Your task to perform on an android device: turn off data saver in the chrome app Image 0: 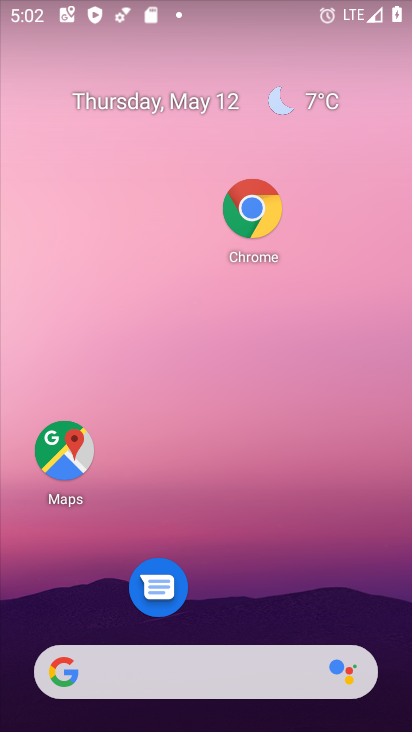
Step 0: drag from (263, 615) to (259, 75)
Your task to perform on an android device: turn off data saver in the chrome app Image 1: 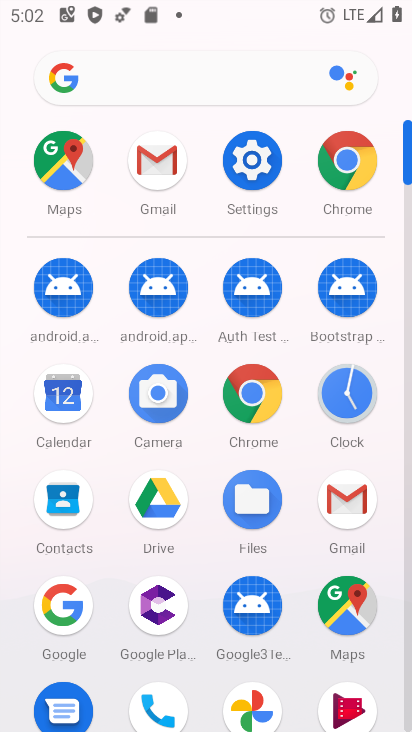
Step 1: click (359, 198)
Your task to perform on an android device: turn off data saver in the chrome app Image 2: 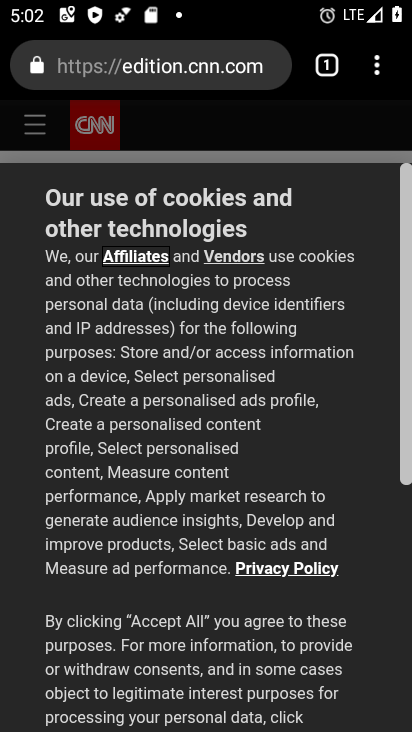
Step 2: click (377, 73)
Your task to perform on an android device: turn off data saver in the chrome app Image 3: 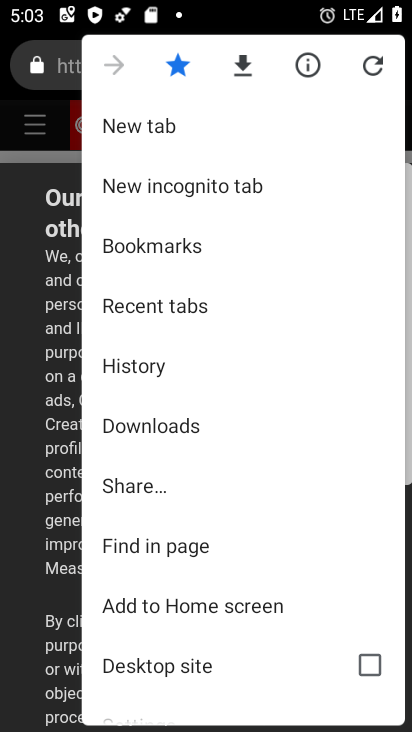
Step 3: drag from (195, 600) to (229, 231)
Your task to perform on an android device: turn off data saver in the chrome app Image 4: 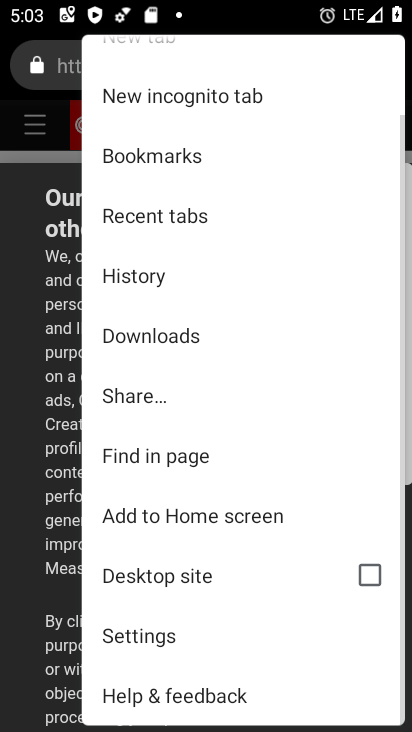
Step 4: click (158, 646)
Your task to perform on an android device: turn off data saver in the chrome app Image 5: 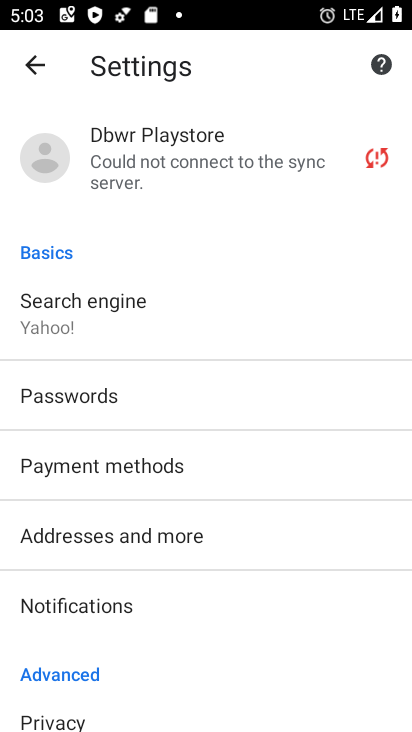
Step 5: drag from (158, 646) to (172, 327)
Your task to perform on an android device: turn off data saver in the chrome app Image 6: 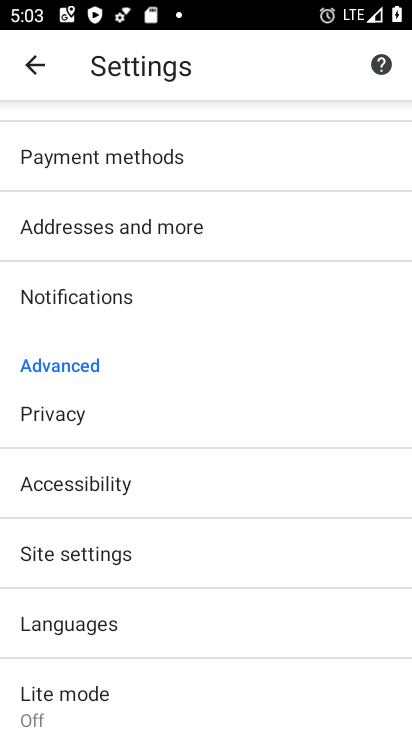
Step 6: click (106, 685)
Your task to perform on an android device: turn off data saver in the chrome app Image 7: 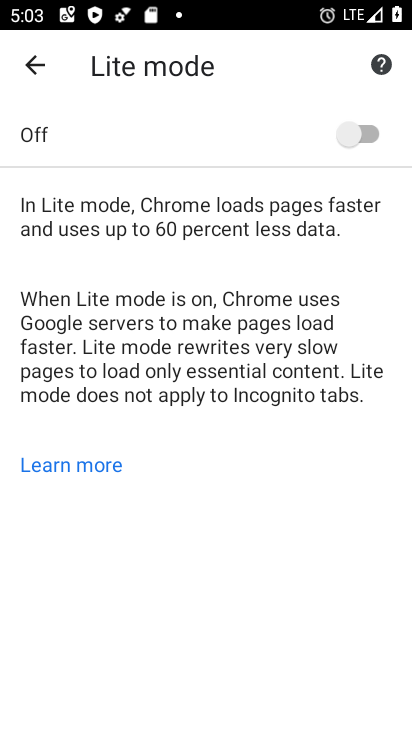
Step 7: task complete